Your task to perform on an android device: Go to notification settings Image 0: 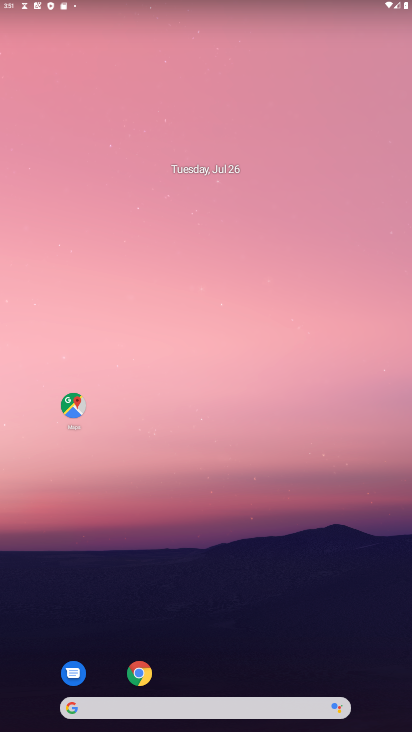
Step 0: drag from (202, 707) to (286, 282)
Your task to perform on an android device: Go to notification settings Image 1: 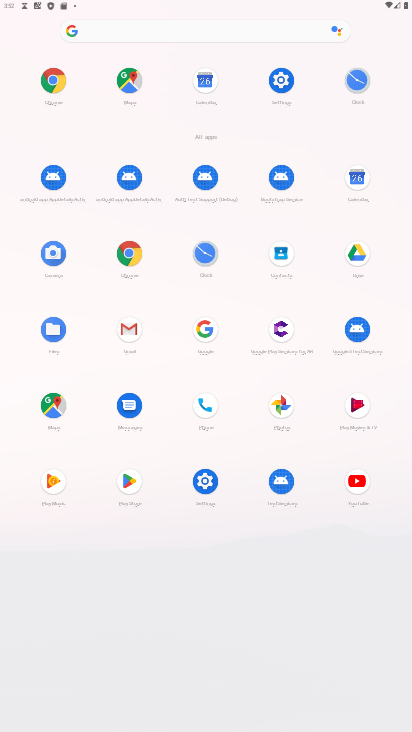
Step 1: click (281, 78)
Your task to perform on an android device: Go to notification settings Image 2: 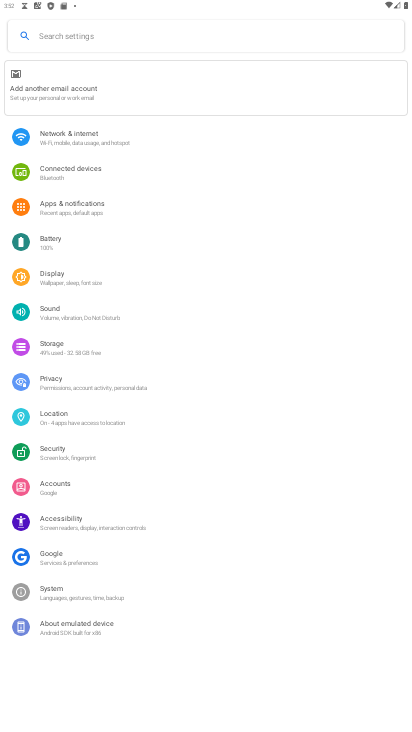
Step 2: click (67, 211)
Your task to perform on an android device: Go to notification settings Image 3: 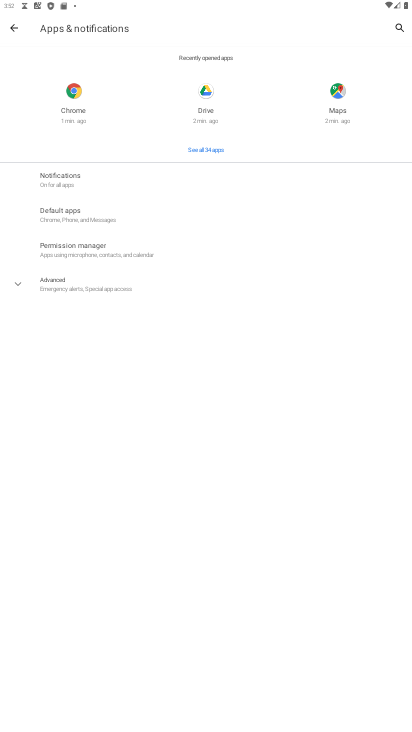
Step 3: click (65, 180)
Your task to perform on an android device: Go to notification settings Image 4: 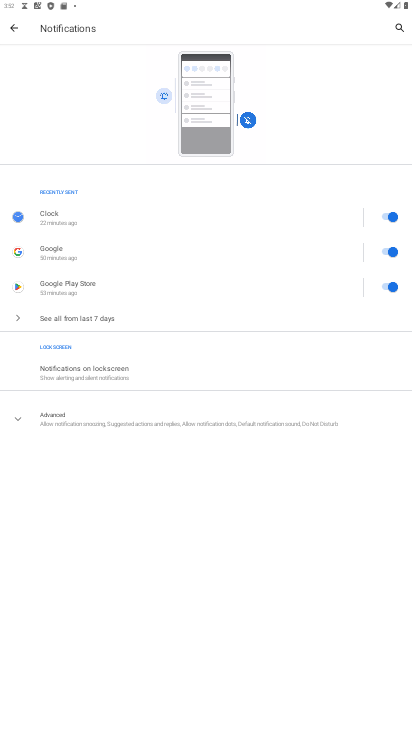
Step 4: task complete